Your task to perform on an android device: Add logitech g933 to the cart on costco, then select checkout. Image 0: 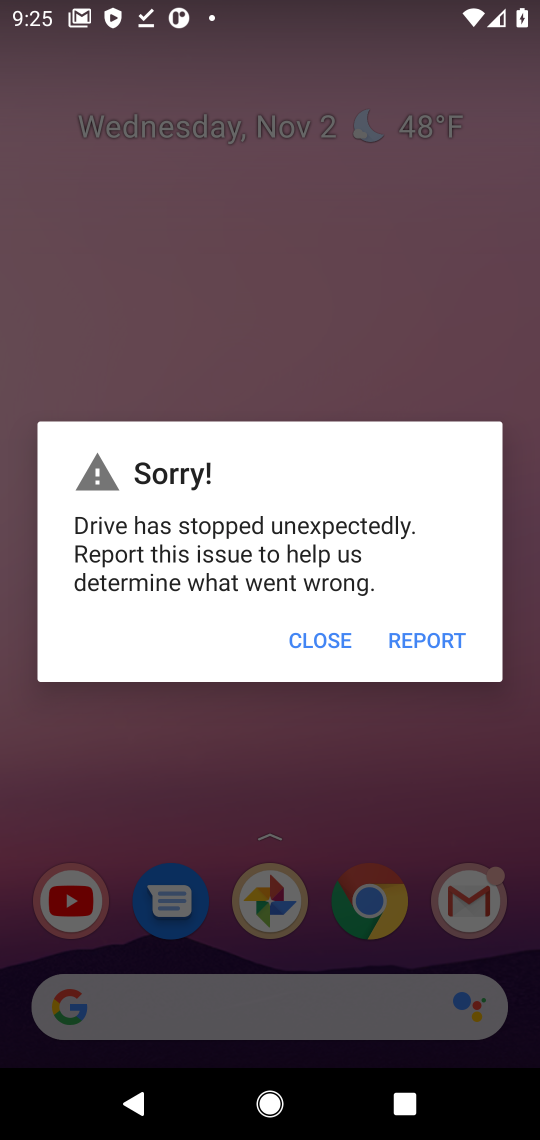
Step 0: click (313, 635)
Your task to perform on an android device: Add logitech g933 to the cart on costco, then select checkout. Image 1: 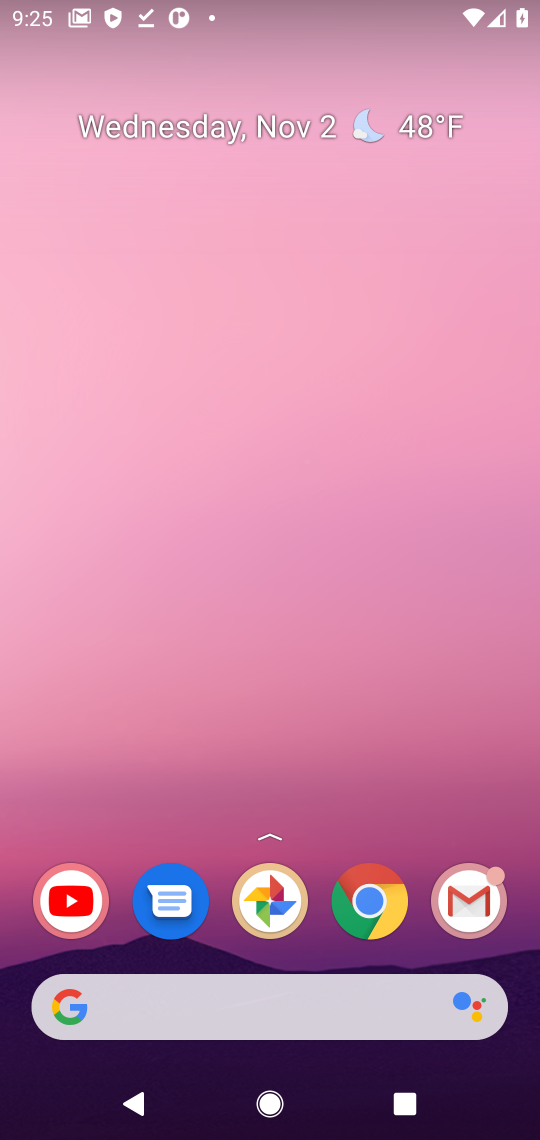
Step 1: click (369, 909)
Your task to perform on an android device: Add logitech g933 to the cart on costco, then select checkout. Image 2: 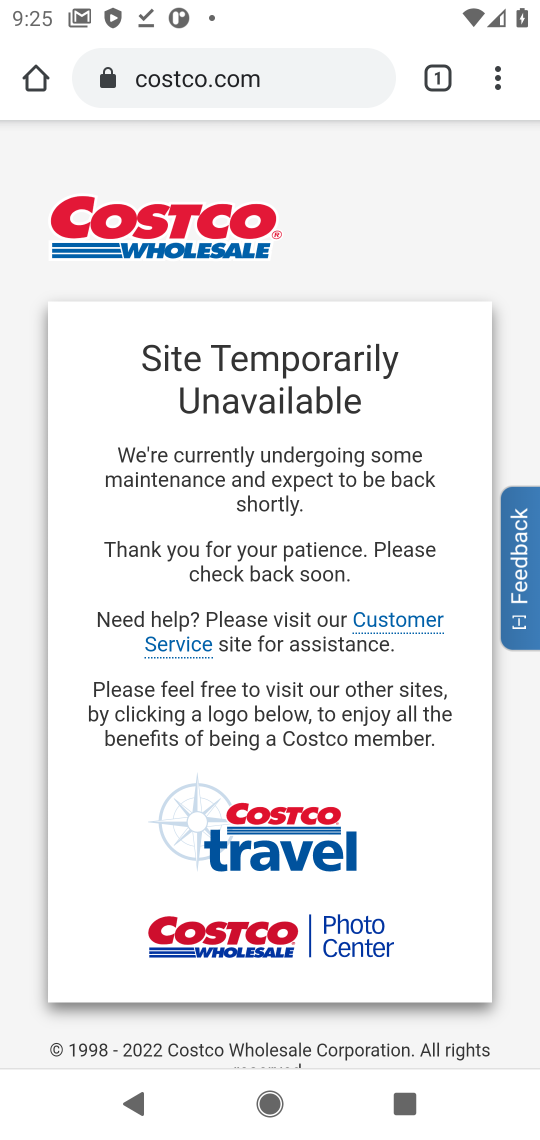
Step 2: click (196, 72)
Your task to perform on an android device: Add logitech g933 to the cart on costco, then select checkout. Image 3: 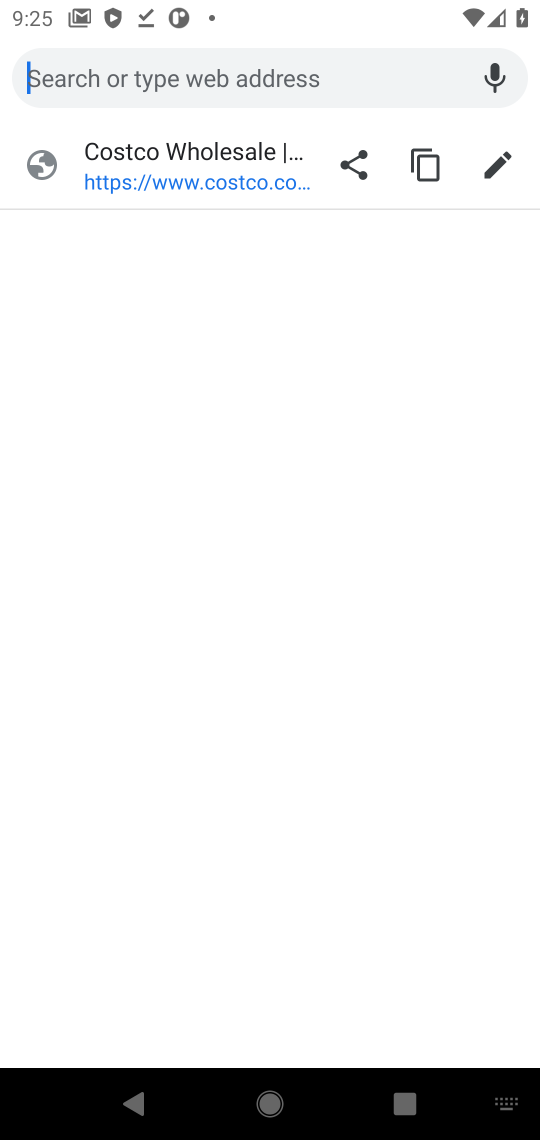
Step 3: type "costco"
Your task to perform on an android device: Add logitech g933 to the cart on costco, then select checkout. Image 4: 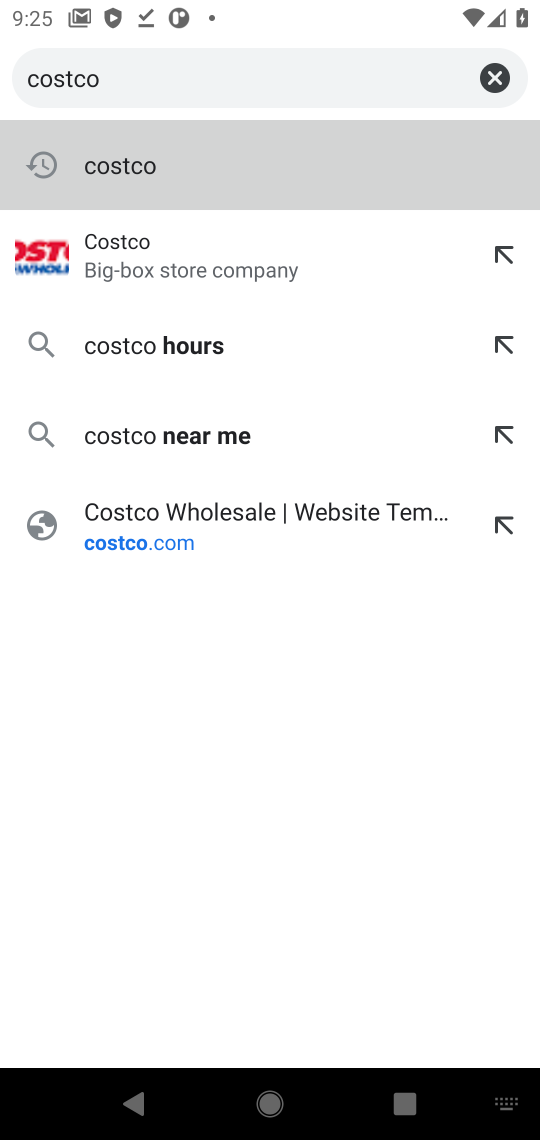
Step 4: click (215, 248)
Your task to perform on an android device: Add logitech g933 to the cart on costco, then select checkout. Image 5: 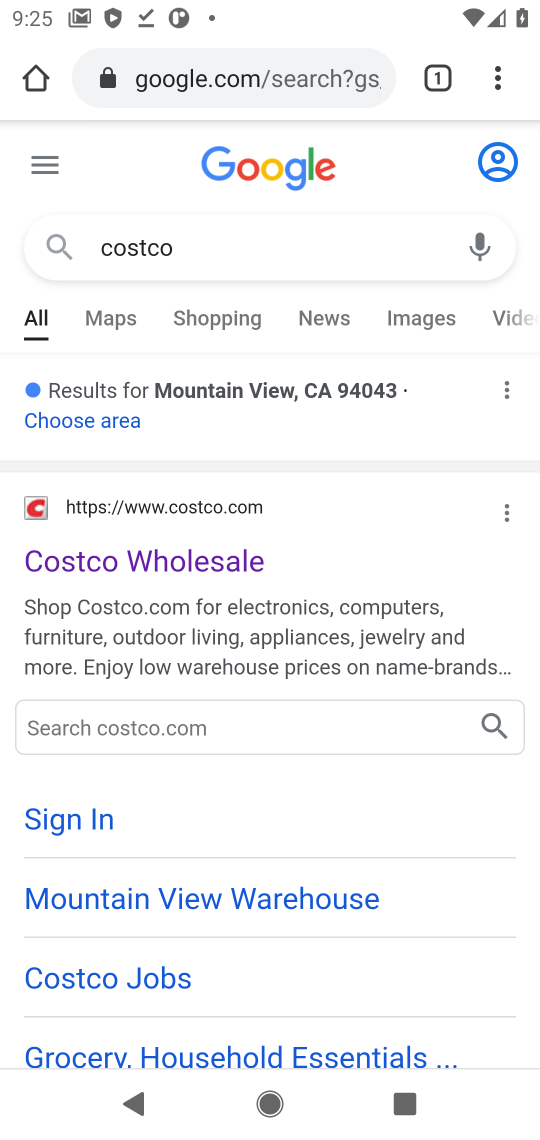
Step 5: click (121, 558)
Your task to perform on an android device: Add logitech g933 to the cart on costco, then select checkout. Image 6: 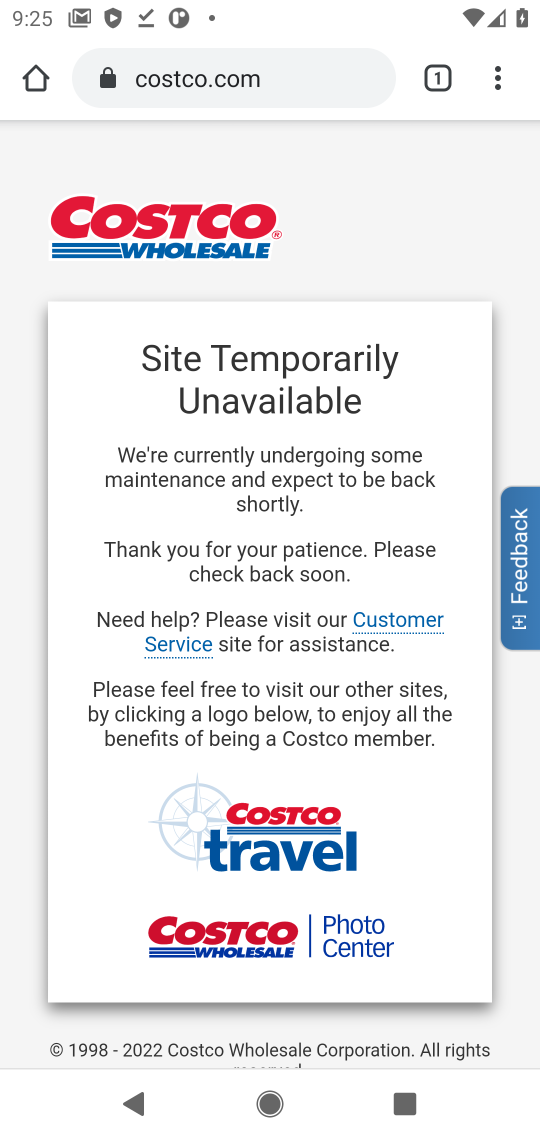
Step 6: task complete